Your task to perform on an android device: turn on notifications settings in the gmail app Image 0: 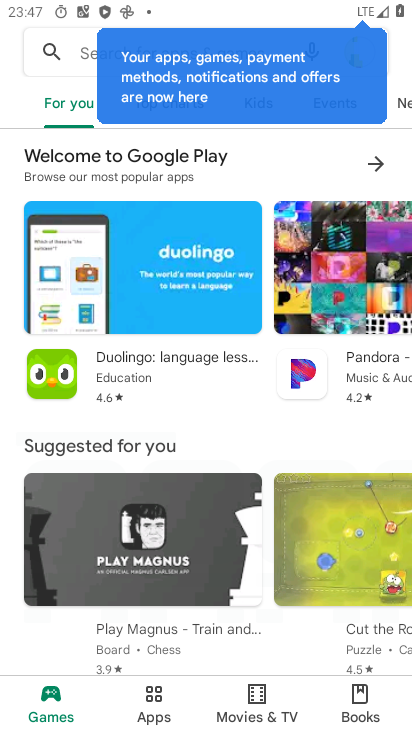
Step 0: press home button
Your task to perform on an android device: turn on notifications settings in the gmail app Image 1: 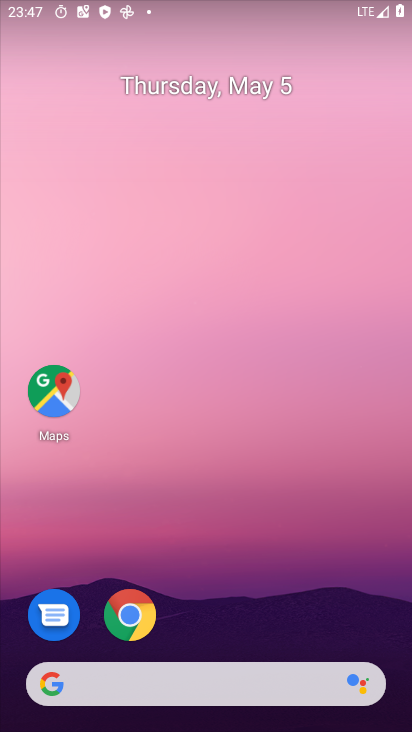
Step 1: drag from (251, 610) to (308, 69)
Your task to perform on an android device: turn on notifications settings in the gmail app Image 2: 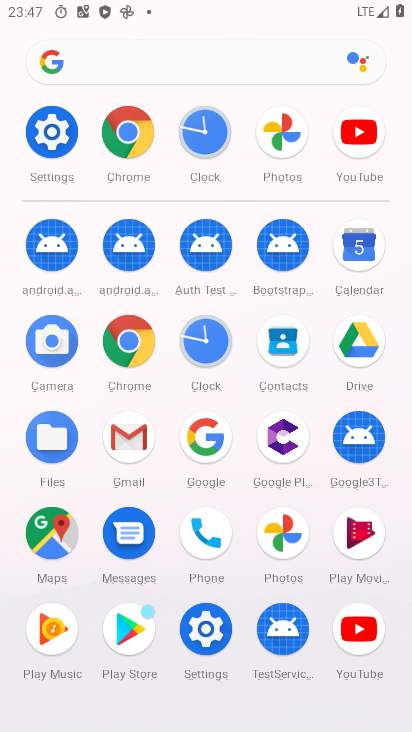
Step 2: click (135, 443)
Your task to perform on an android device: turn on notifications settings in the gmail app Image 3: 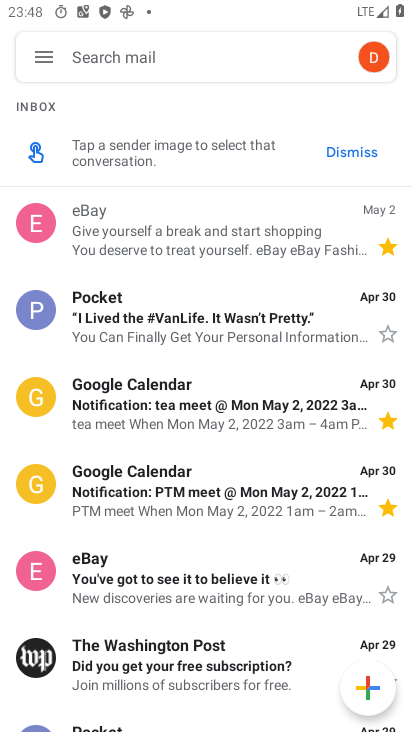
Step 3: click (33, 56)
Your task to perform on an android device: turn on notifications settings in the gmail app Image 4: 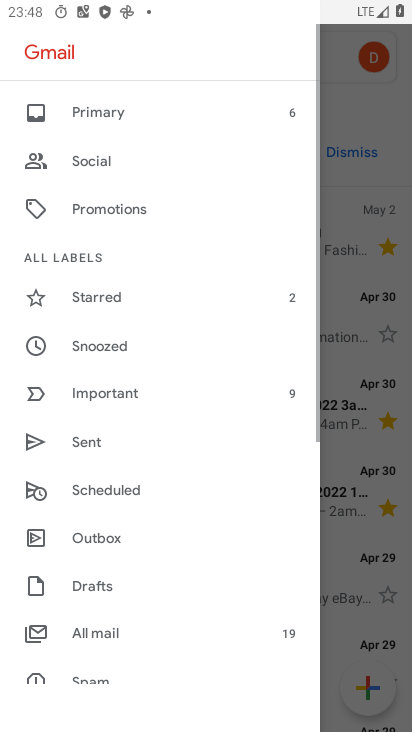
Step 4: drag from (139, 633) to (203, 96)
Your task to perform on an android device: turn on notifications settings in the gmail app Image 5: 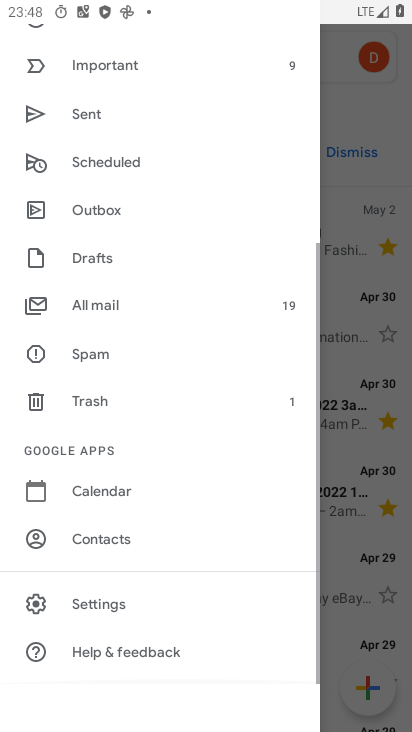
Step 5: click (126, 609)
Your task to perform on an android device: turn on notifications settings in the gmail app Image 6: 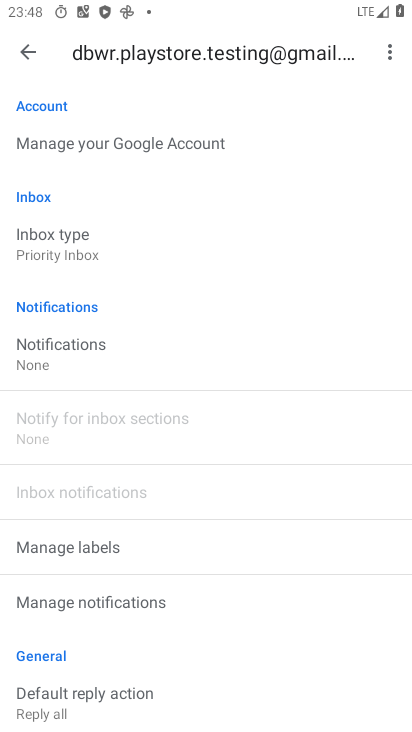
Step 6: click (81, 351)
Your task to perform on an android device: turn on notifications settings in the gmail app Image 7: 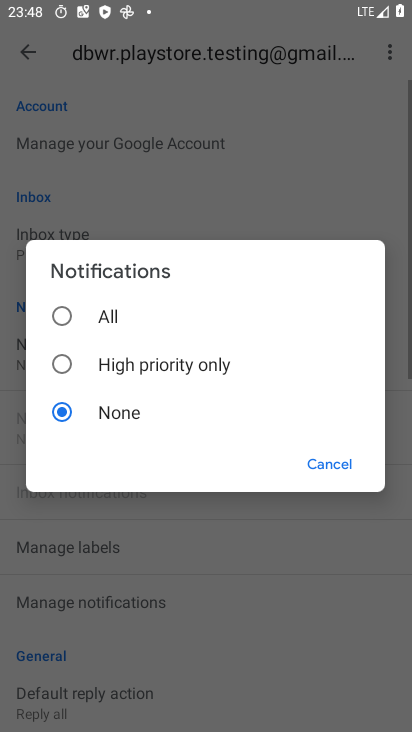
Step 7: click (82, 318)
Your task to perform on an android device: turn on notifications settings in the gmail app Image 8: 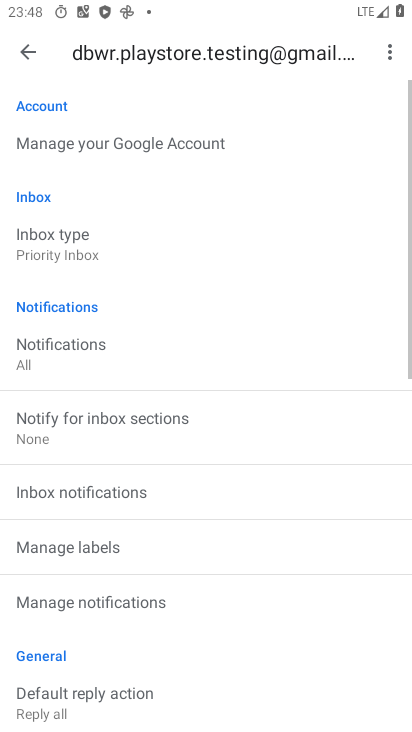
Step 8: task complete